Your task to perform on an android device: open wifi settings Image 0: 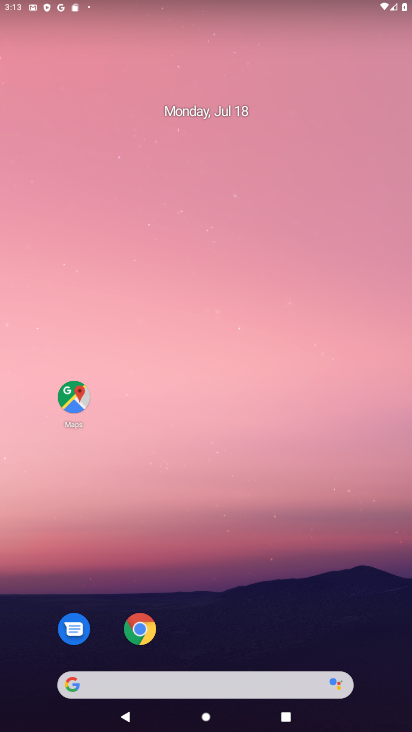
Step 0: drag from (252, 665) to (259, 221)
Your task to perform on an android device: open wifi settings Image 1: 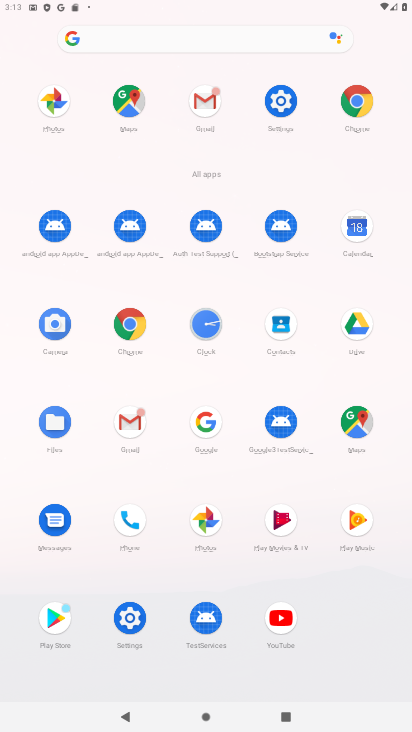
Step 1: click (276, 101)
Your task to perform on an android device: open wifi settings Image 2: 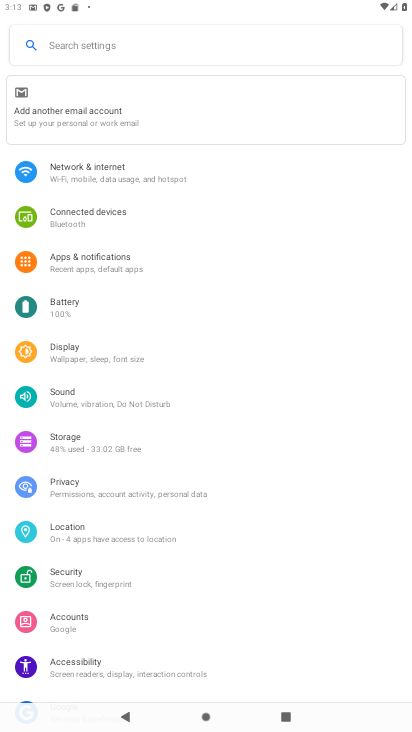
Step 2: click (119, 170)
Your task to perform on an android device: open wifi settings Image 3: 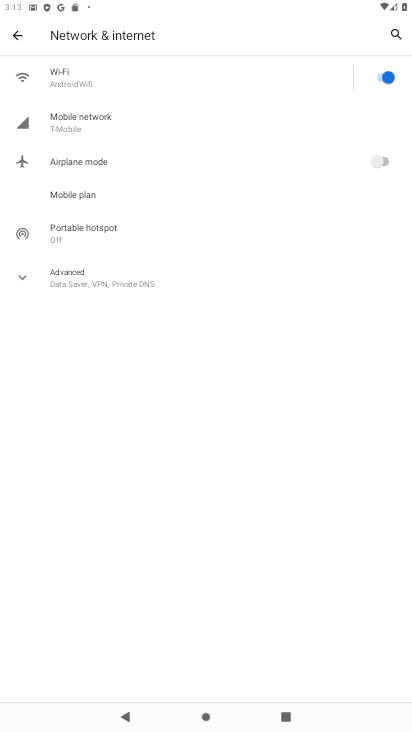
Step 3: click (54, 76)
Your task to perform on an android device: open wifi settings Image 4: 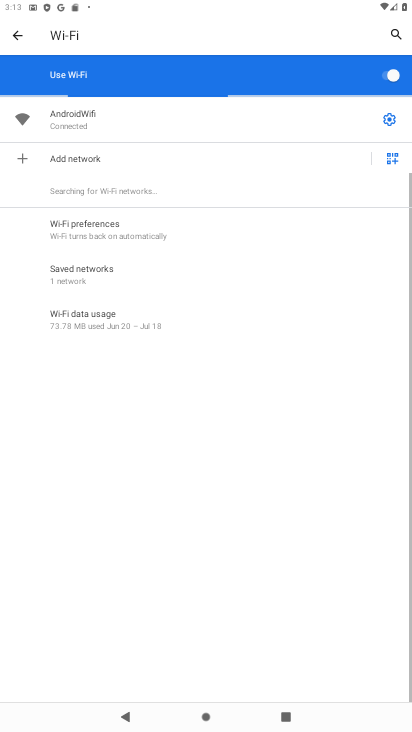
Step 4: click (387, 116)
Your task to perform on an android device: open wifi settings Image 5: 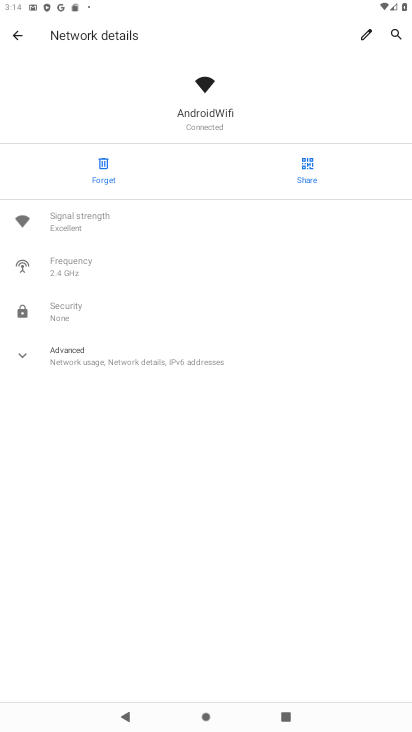
Step 5: click (70, 356)
Your task to perform on an android device: open wifi settings Image 6: 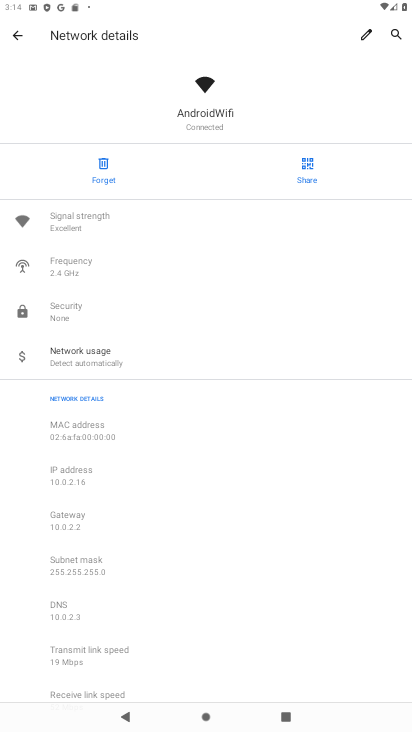
Step 6: task complete